Your task to perform on an android device: Open calendar and show me the first week of next month Image 0: 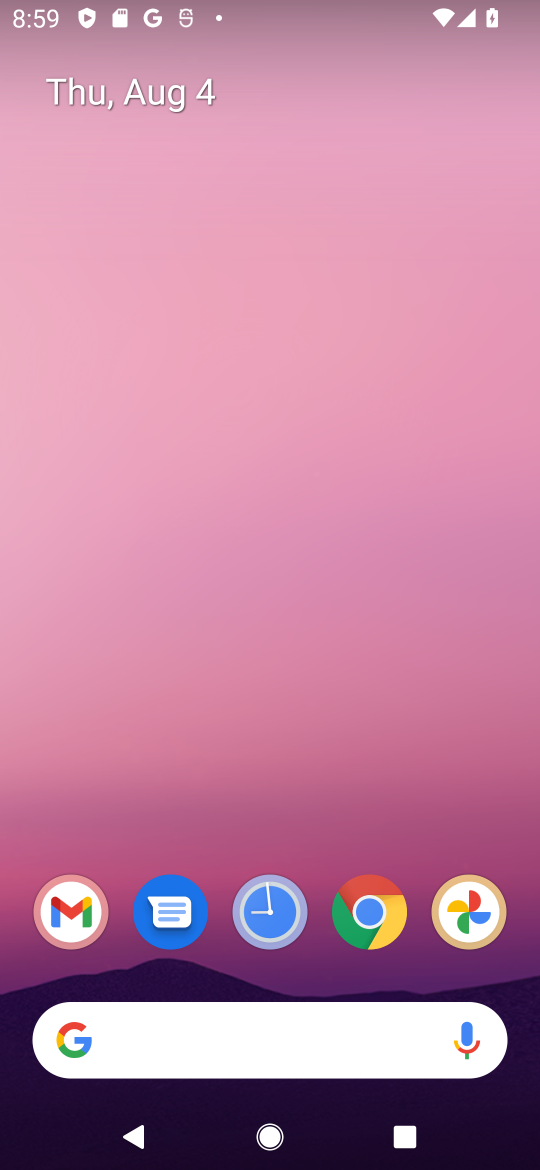
Step 0: drag from (433, 816) to (355, 65)
Your task to perform on an android device: Open calendar and show me the first week of next month Image 1: 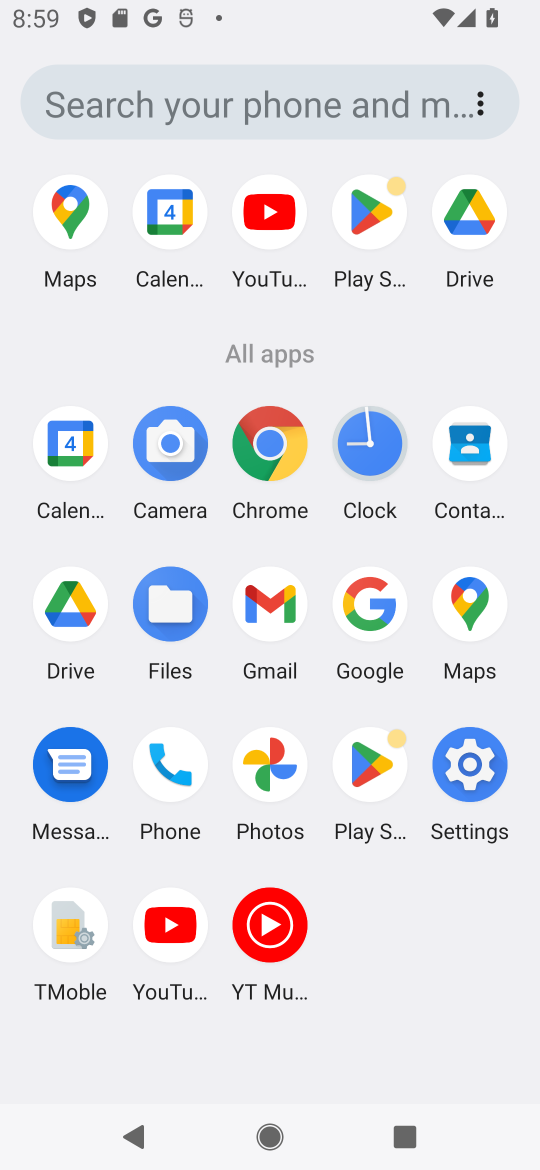
Step 1: click (73, 443)
Your task to perform on an android device: Open calendar and show me the first week of next month Image 2: 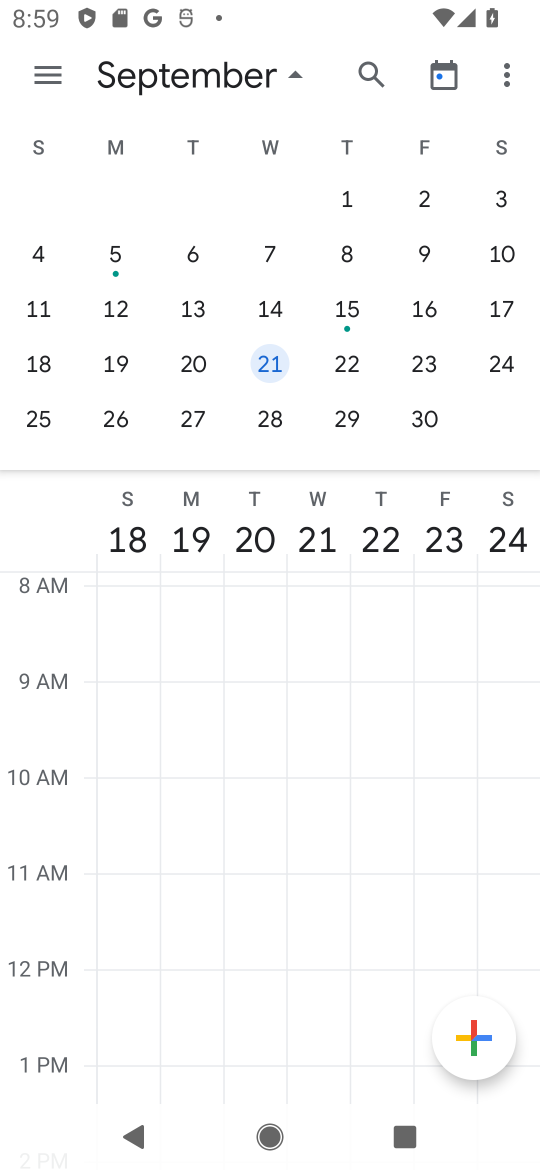
Step 2: click (352, 260)
Your task to perform on an android device: Open calendar and show me the first week of next month Image 3: 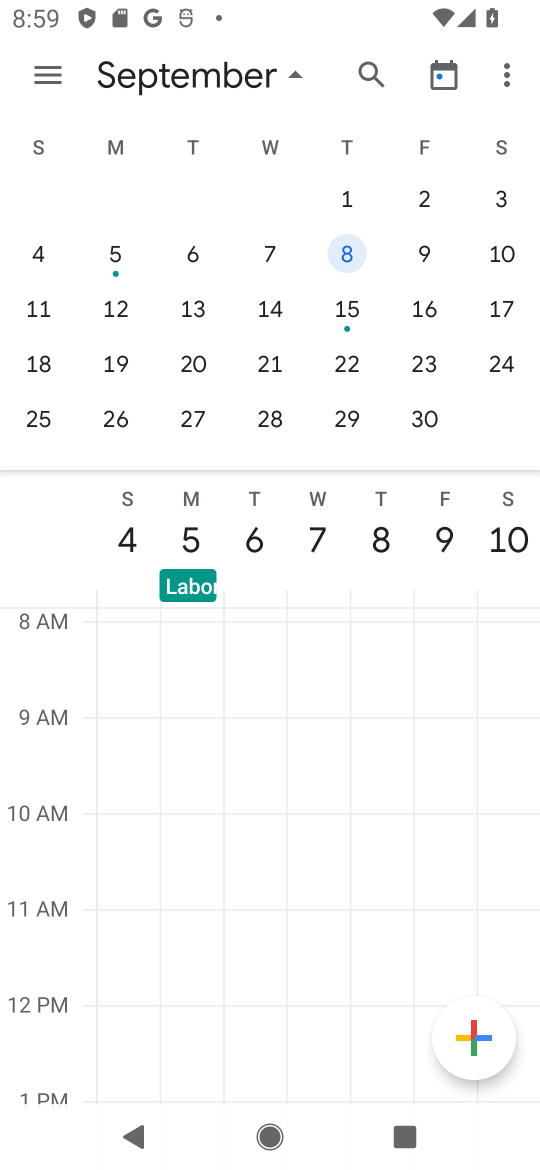
Step 3: task complete